Your task to perform on an android device: Search for Italian restaurants on Maps Image 0: 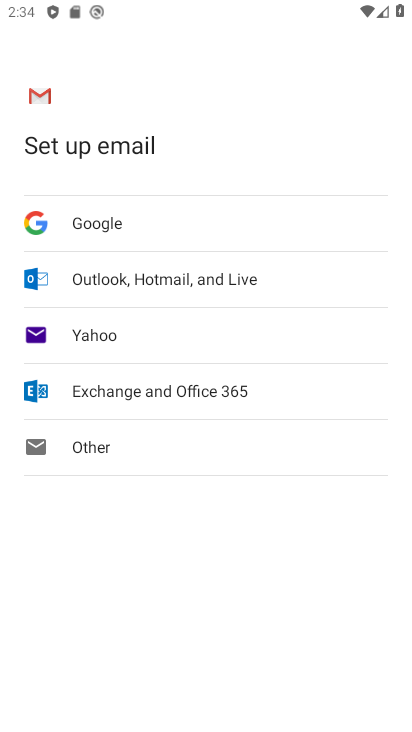
Step 0: press home button
Your task to perform on an android device: Search for Italian restaurants on Maps Image 1: 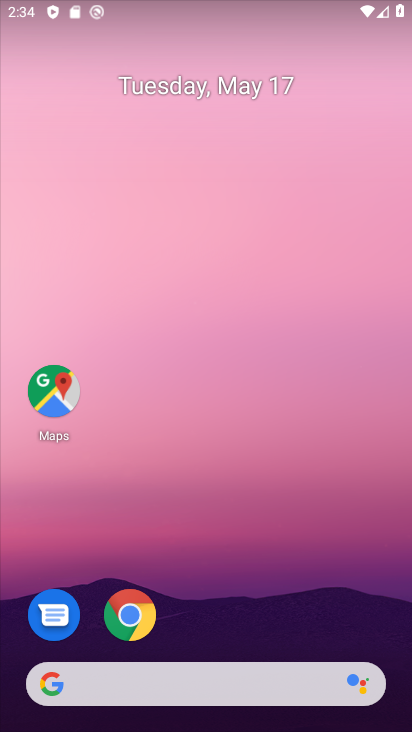
Step 1: drag from (195, 728) to (197, 193)
Your task to perform on an android device: Search for Italian restaurants on Maps Image 2: 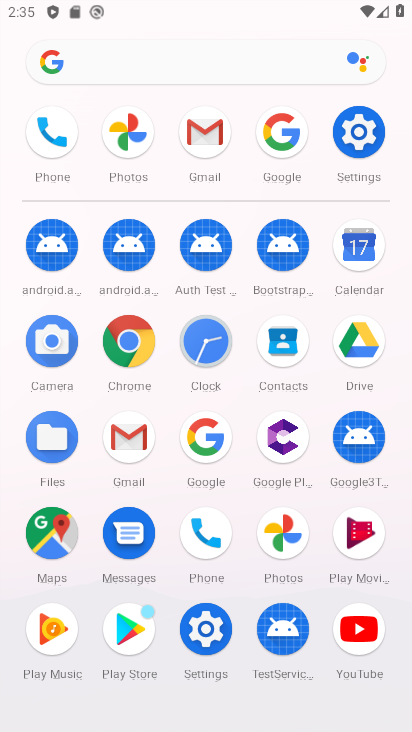
Step 2: click (54, 530)
Your task to perform on an android device: Search for Italian restaurants on Maps Image 3: 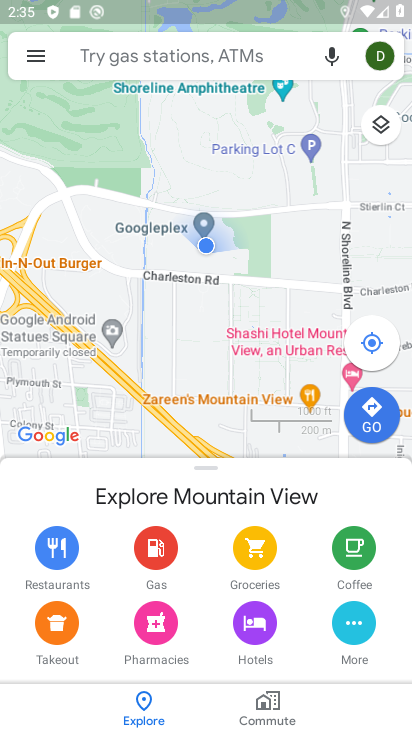
Step 3: click (118, 53)
Your task to perform on an android device: Search for Italian restaurants on Maps Image 4: 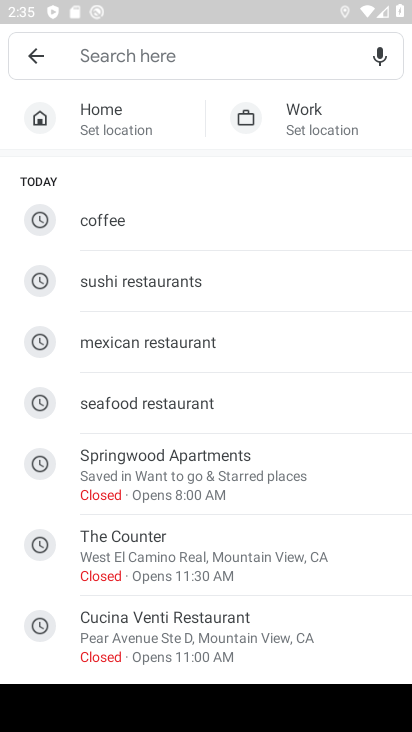
Step 4: type "italian restaurants"
Your task to perform on an android device: Search for Italian restaurants on Maps Image 5: 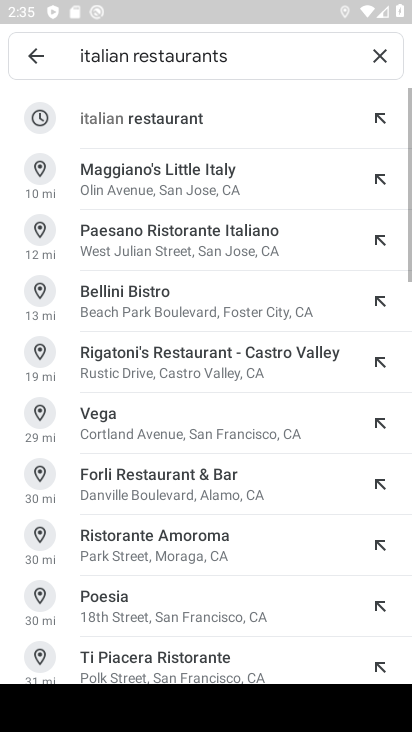
Step 5: click (103, 122)
Your task to perform on an android device: Search for Italian restaurants on Maps Image 6: 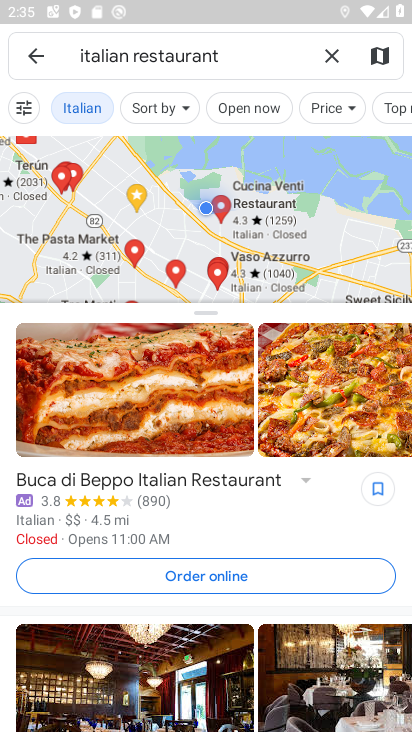
Step 6: task complete